Your task to perform on an android device: turn off javascript in the chrome app Image 0: 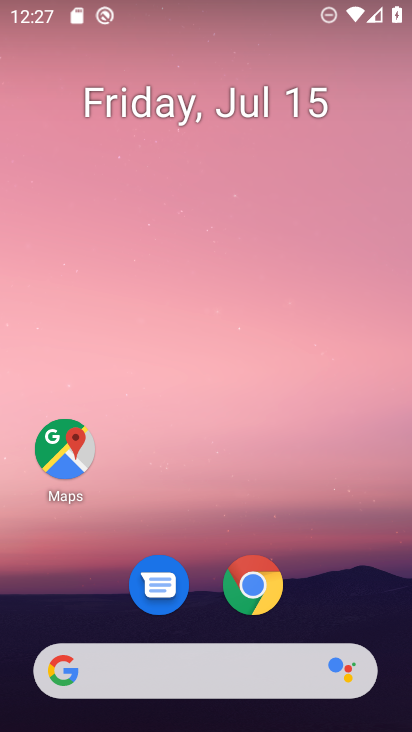
Step 0: click (261, 574)
Your task to perform on an android device: turn off javascript in the chrome app Image 1: 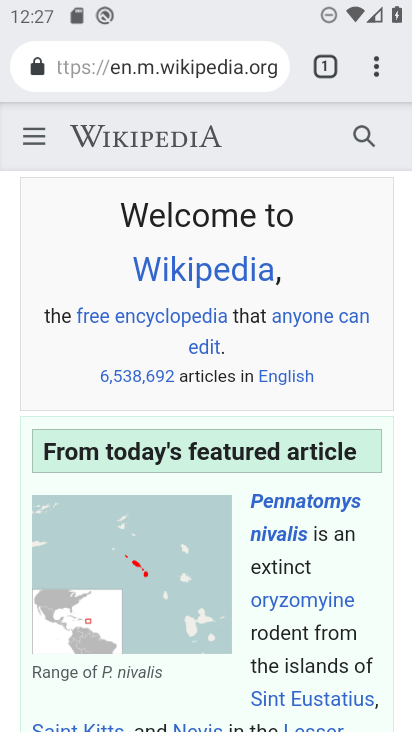
Step 1: click (370, 66)
Your task to perform on an android device: turn off javascript in the chrome app Image 2: 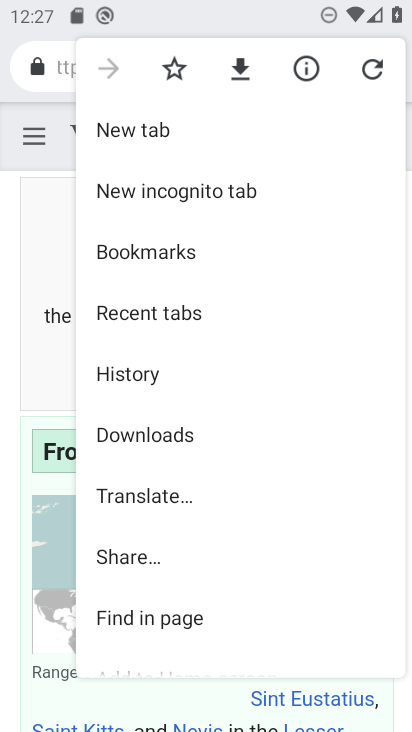
Step 2: drag from (207, 531) to (292, 178)
Your task to perform on an android device: turn off javascript in the chrome app Image 3: 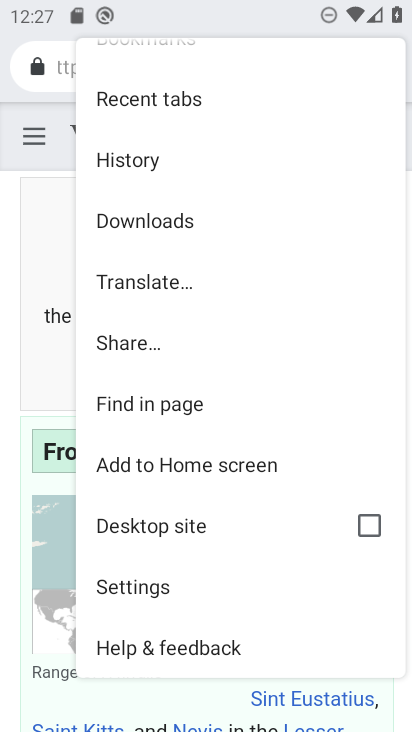
Step 3: click (150, 583)
Your task to perform on an android device: turn off javascript in the chrome app Image 4: 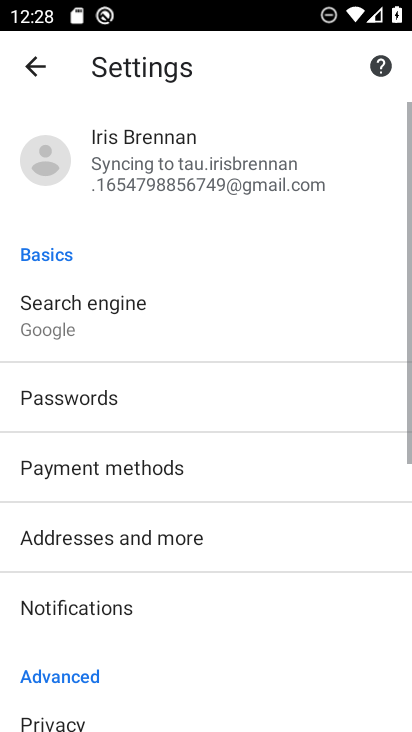
Step 4: drag from (260, 545) to (280, 207)
Your task to perform on an android device: turn off javascript in the chrome app Image 5: 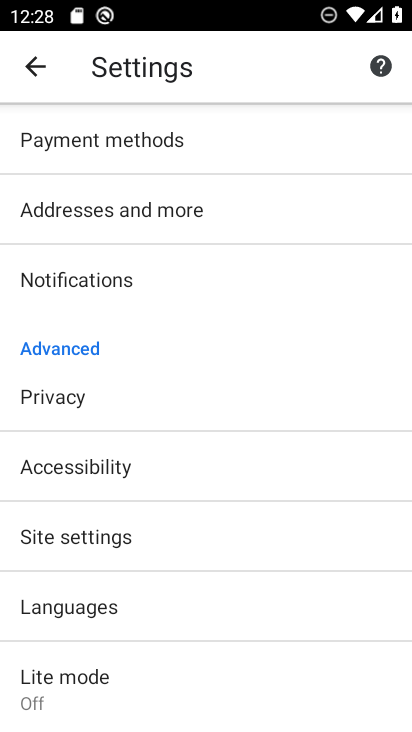
Step 5: click (125, 540)
Your task to perform on an android device: turn off javascript in the chrome app Image 6: 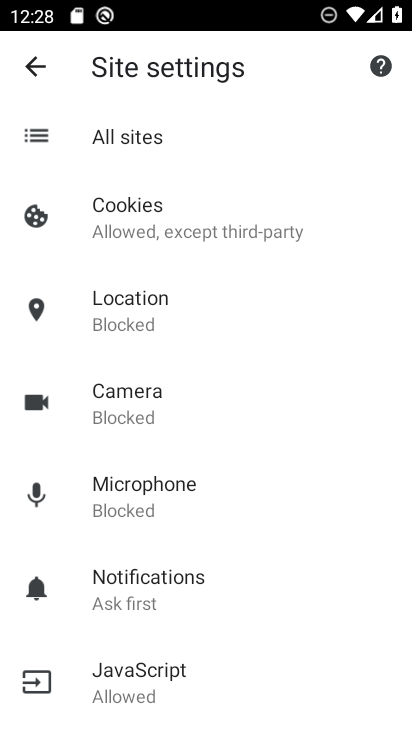
Step 6: click (191, 681)
Your task to perform on an android device: turn off javascript in the chrome app Image 7: 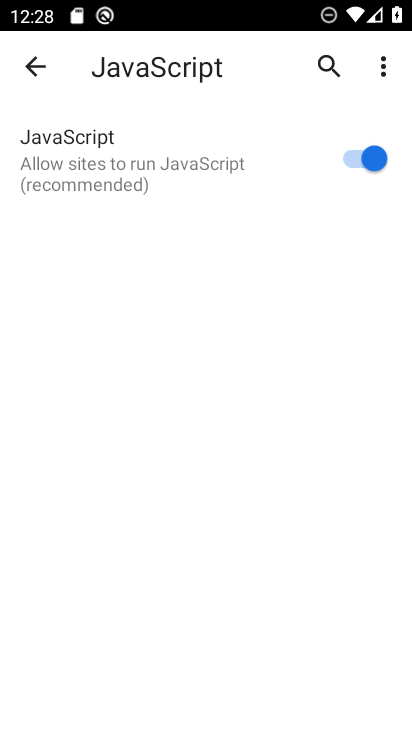
Step 7: click (357, 156)
Your task to perform on an android device: turn off javascript in the chrome app Image 8: 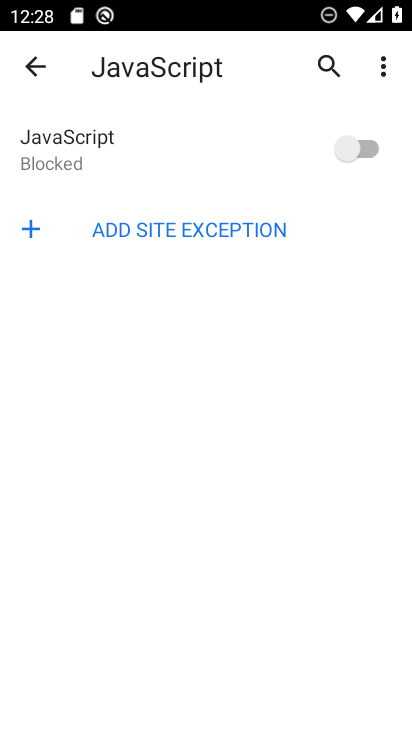
Step 8: task complete